Your task to perform on an android device: add a contact Image 0: 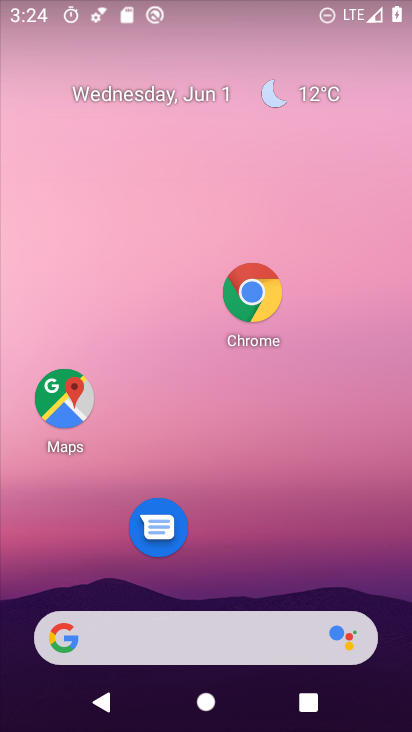
Step 0: click (309, 36)
Your task to perform on an android device: add a contact Image 1: 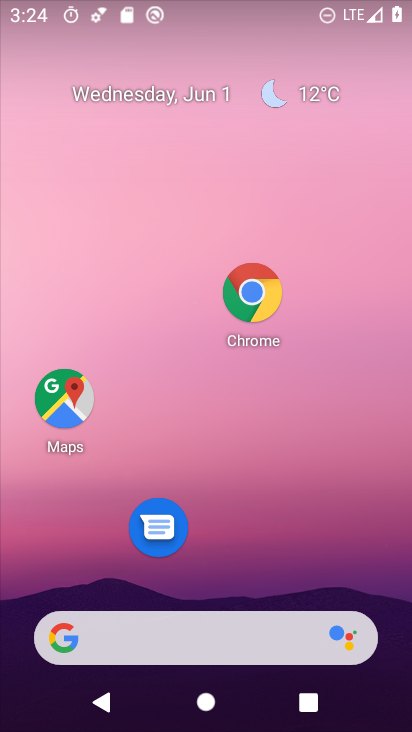
Step 1: click (393, 546)
Your task to perform on an android device: add a contact Image 2: 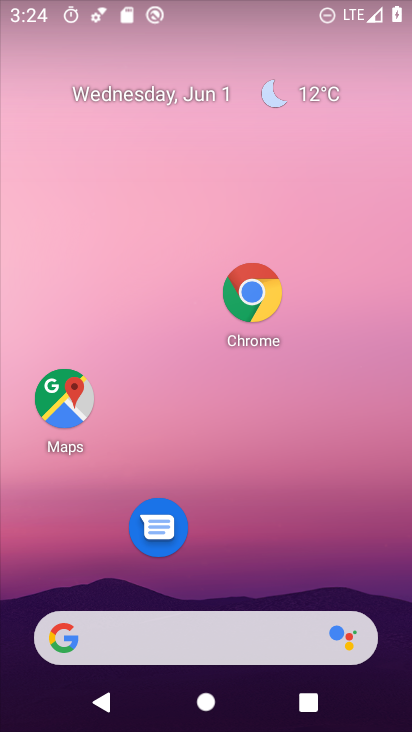
Step 2: drag from (285, 372) to (327, 25)
Your task to perform on an android device: add a contact Image 3: 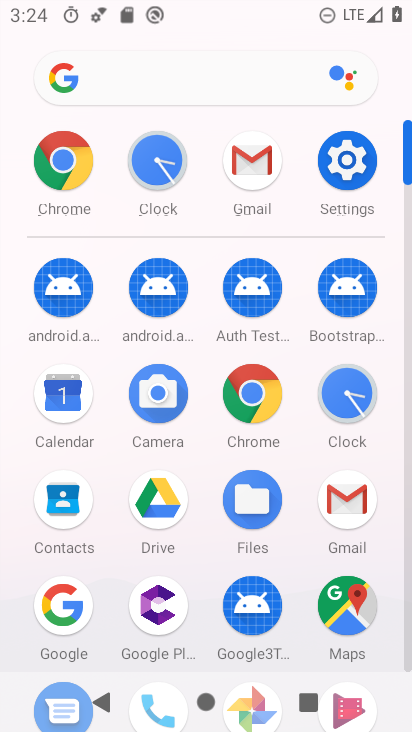
Step 3: click (245, 79)
Your task to perform on an android device: add a contact Image 4: 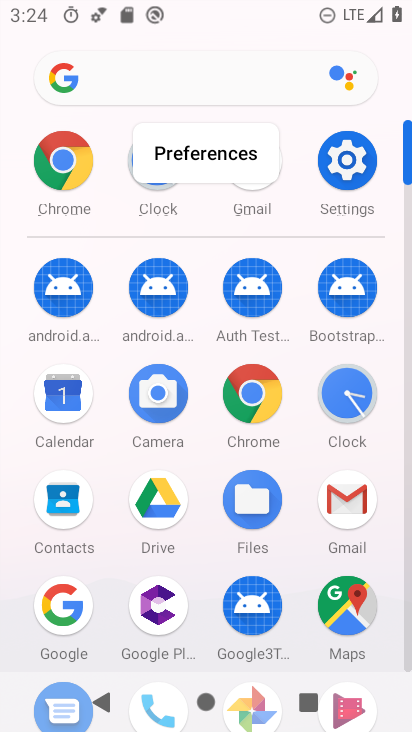
Step 4: click (63, 500)
Your task to perform on an android device: add a contact Image 5: 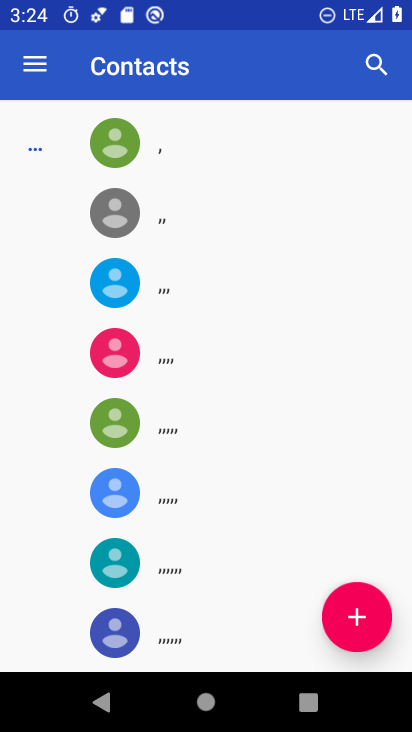
Step 5: click (348, 618)
Your task to perform on an android device: add a contact Image 6: 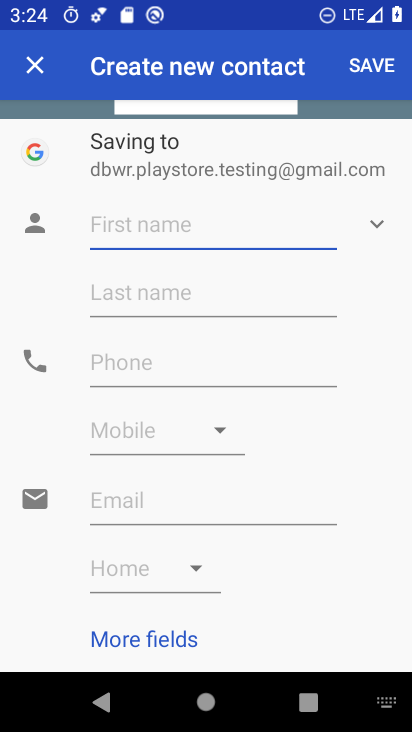
Step 6: type "dxdexe"
Your task to perform on an android device: add a contact Image 7: 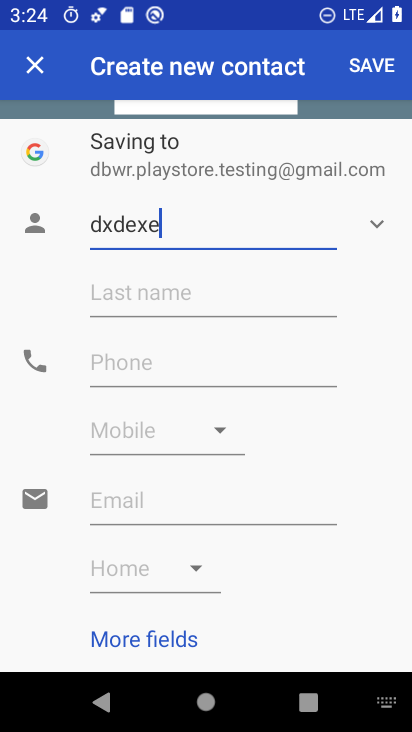
Step 7: type ""
Your task to perform on an android device: add a contact Image 8: 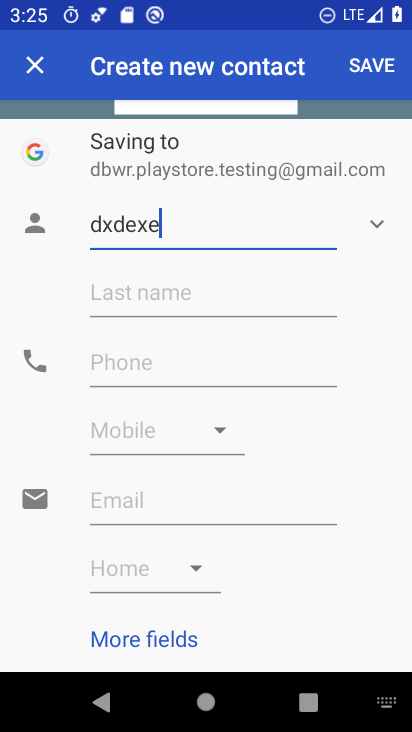
Step 8: click (214, 346)
Your task to perform on an android device: add a contact Image 9: 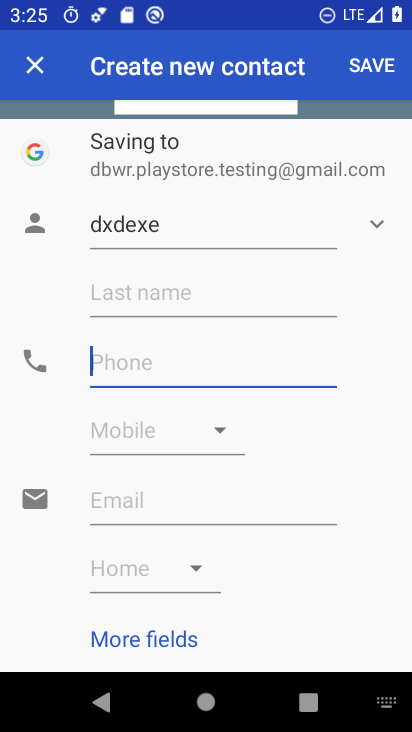
Step 9: type "4343433"
Your task to perform on an android device: add a contact Image 10: 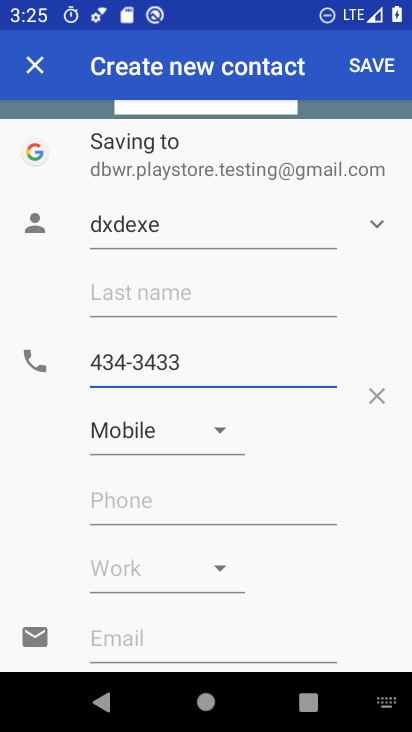
Step 10: click (379, 71)
Your task to perform on an android device: add a contact Image 11: 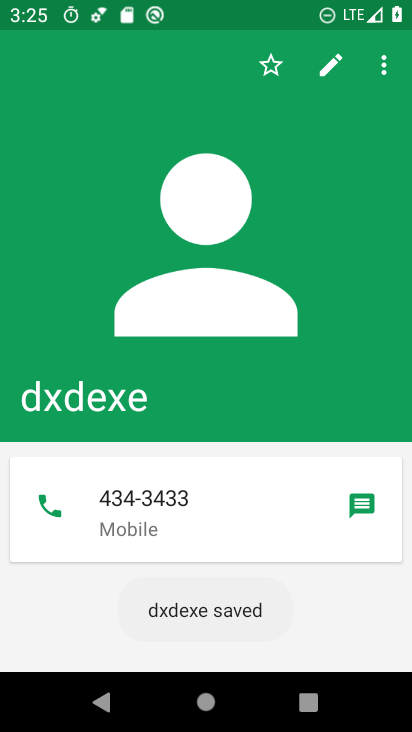
Step 11: click (374, 74)
Your task to perform on an android device: add a contact Image 12: 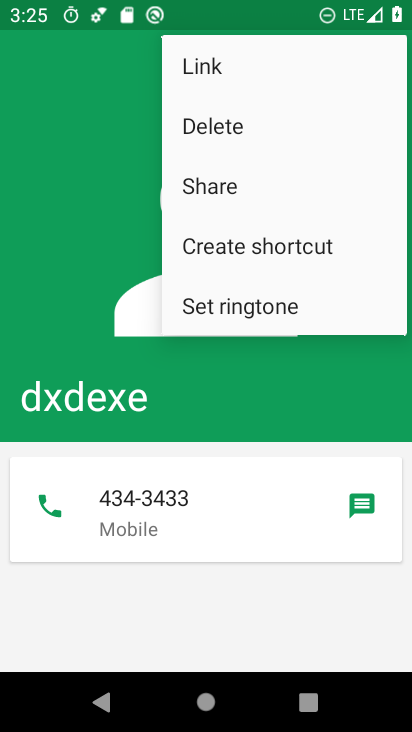
Step 12: task complete